Your task to perform on an android device: toggle wifi Image 0: 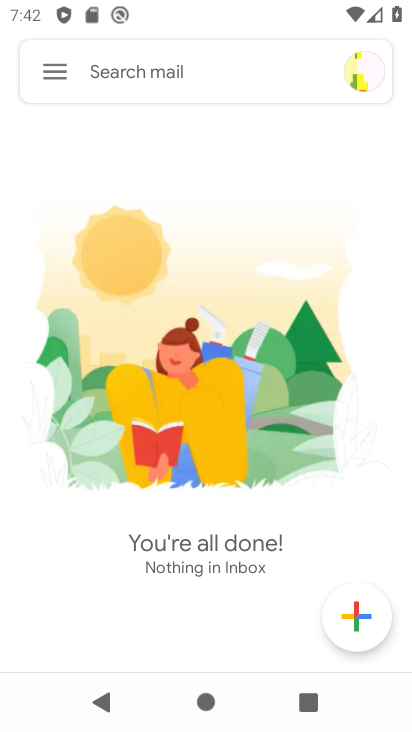
Step 0: press home button
Your task to perform on an android device: toggle wifi Image 1: 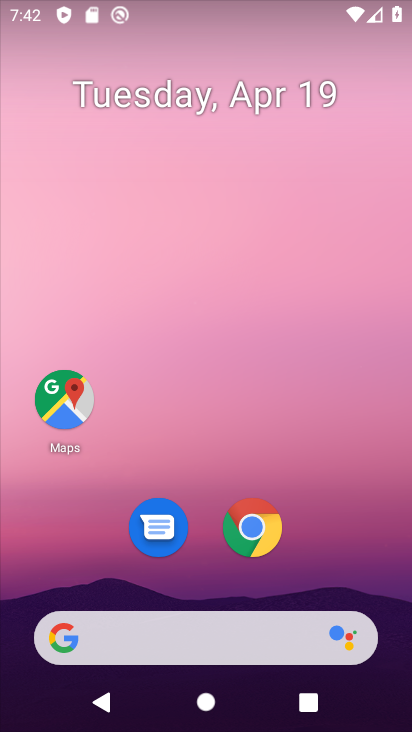
Step 1: drag from (386, 572) to (376, 114)
Your task to perform on an android device: toggle wifi Image 2: 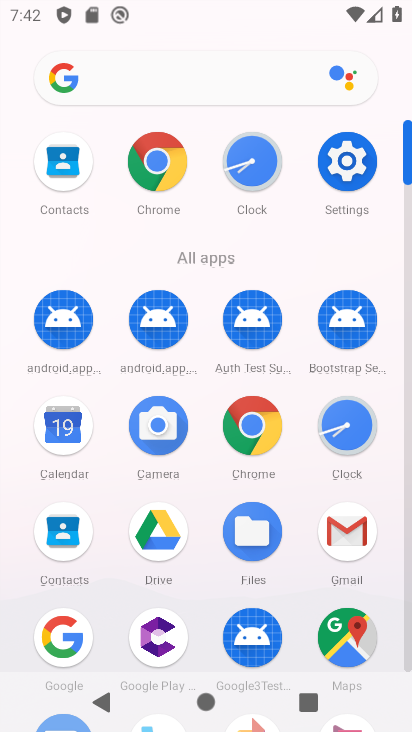
Step 2: click (348, 169)
Your task to perform on an android device: toggle wifi Image 3: 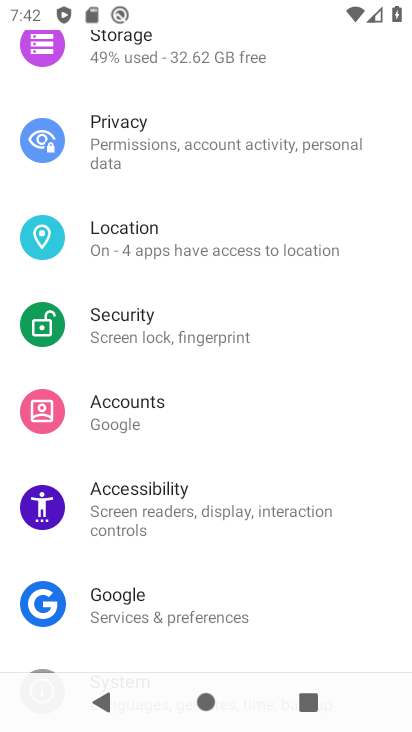
Step 3: drag from (357, 107) to (379, 617)
Your task to perform on an android device: toggle wifi Image 4: 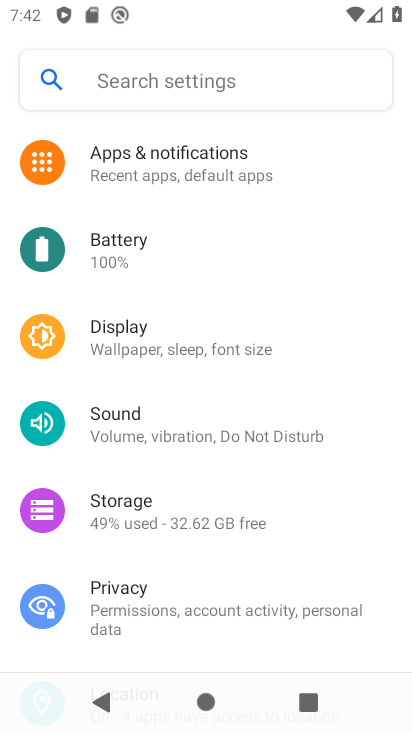
Step 4: drag from (344, 242) to (354, 647)
Your task to perform on an android device: toggle wifi Image 5: 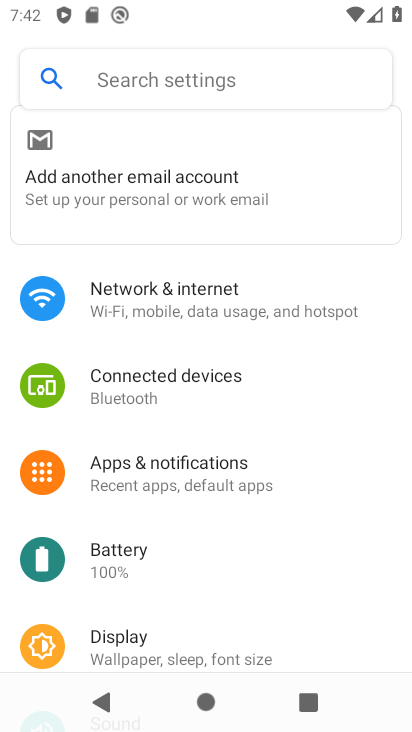
Step 5: click (228, 308)
Your task to perform on an android device: toggle wifi Image 6: 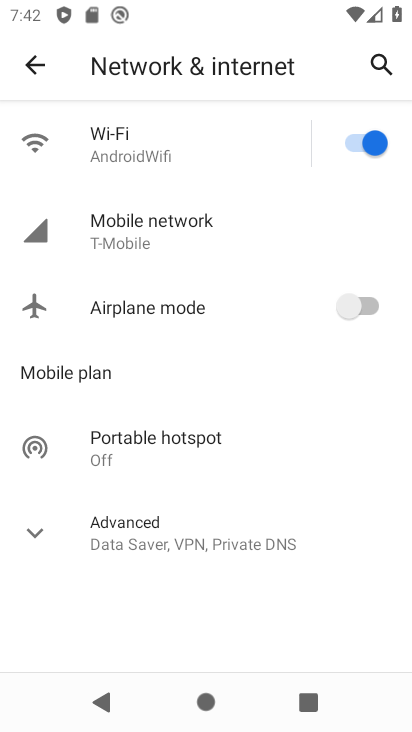
Step 6: click (361, 142)
Your task to perform on an android device: toggle wifi Image 7: 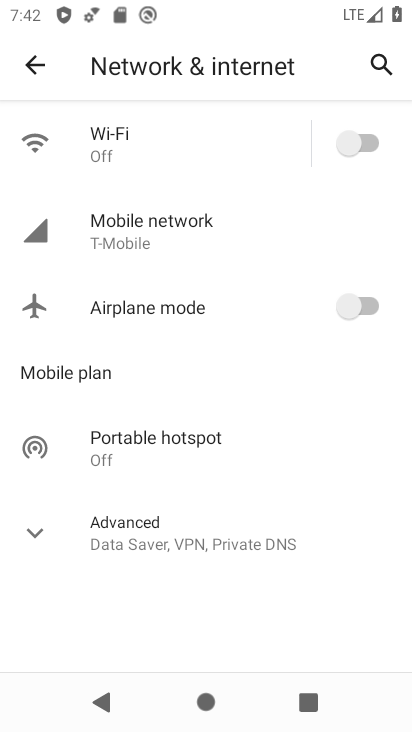
Step 7: task complete